Your task to perform on an android device: toggle data saver in the chrome app Image 0: 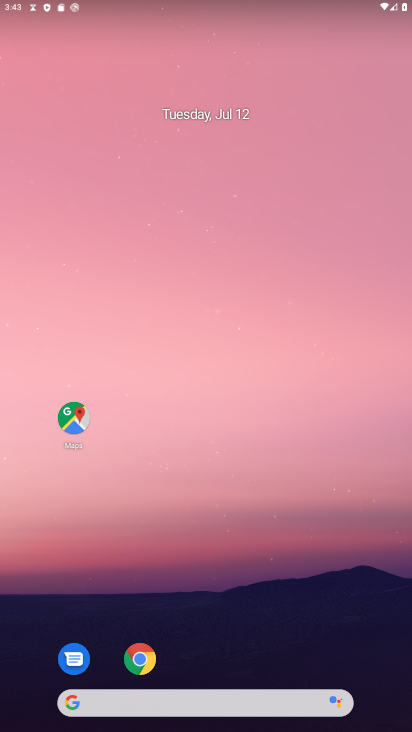
Step 0: press home button
Your task to perform on an android device: toggle data saver in the chrome app Image 1: 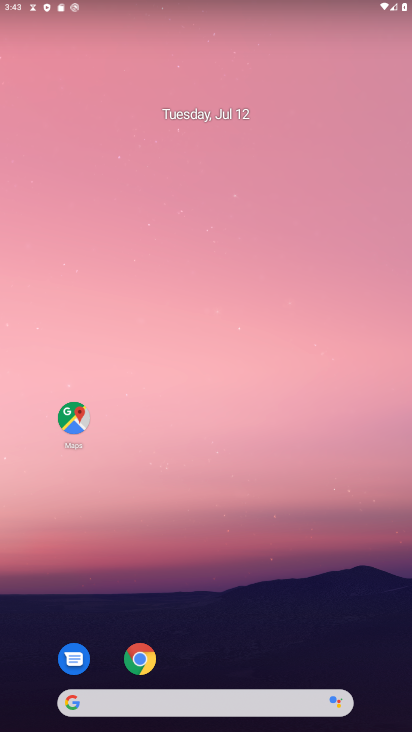
Step 1: drag from (316, 632) to (337, 63)
Your task to perform on an android device: toggle data saver in the chrome app Image 2: 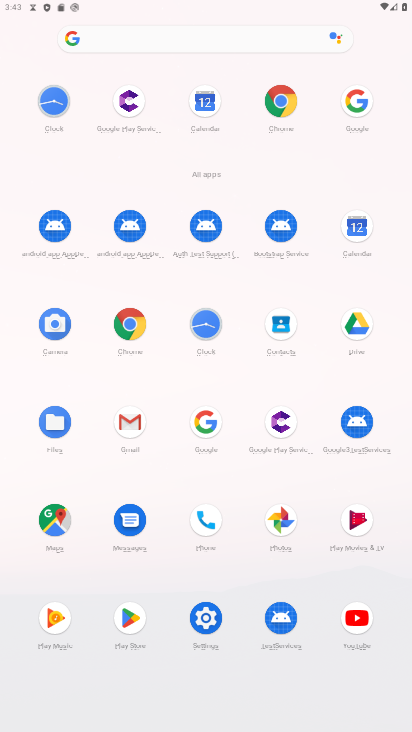
Step 2: click (280, 107)
Your task to perform on an android device: toggle data saver in the chrome app Image 3: 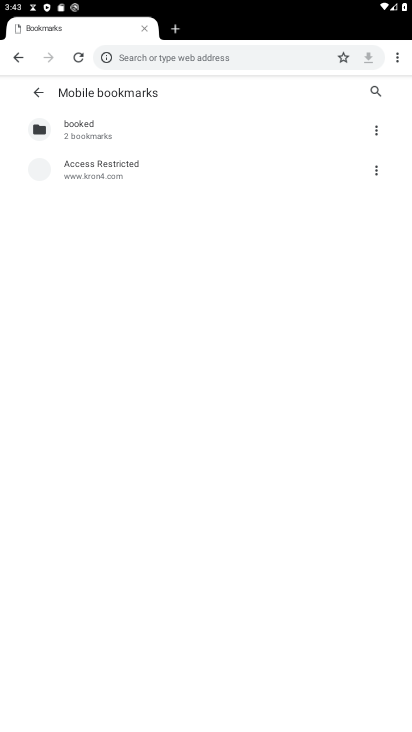
Step 3: drag from (399, 54) to (281, 258)
Your task to perform on an android device: toggle data saver in the chrome app Image 4: 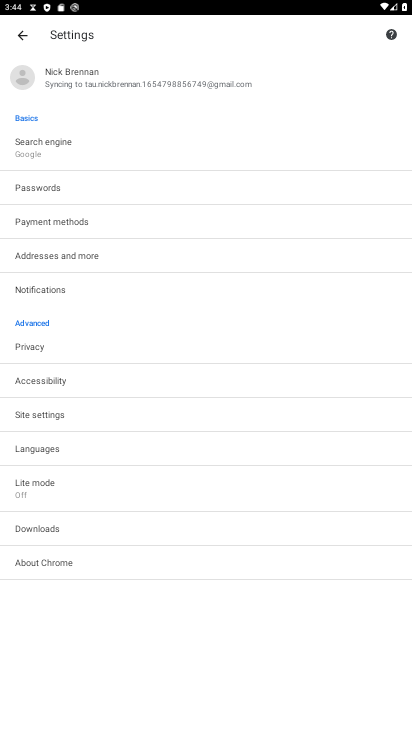
Step 4: click (25, 479)
Your task to perform on an android device: toggle data saver in the chrome app Image 5: 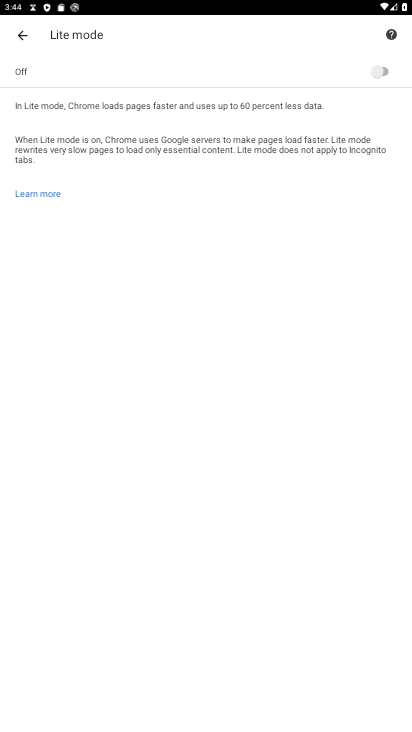
Step 5: click (384, 74)
Your task to perform on an android device: toggle data saver in the chrome app Image 6: 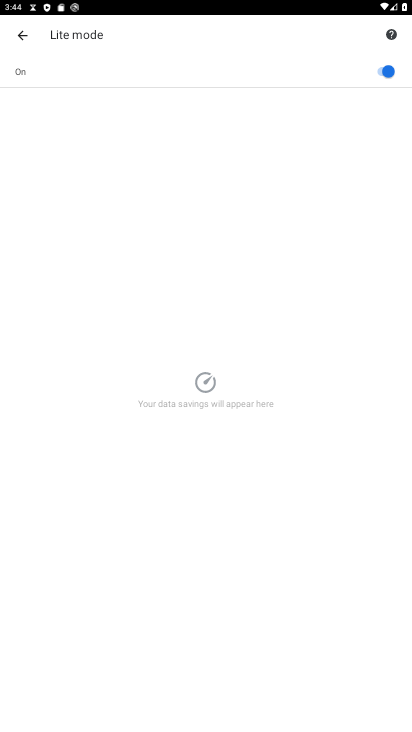
Step 6: task complete